Your task to perform on an android device: Open Google Image 0: 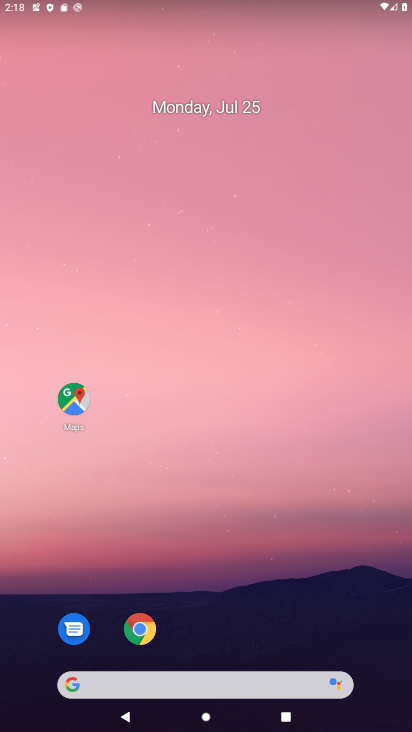
Step 0: click (99, 690)
Your task to perform on an android device: Open Google Image 1: 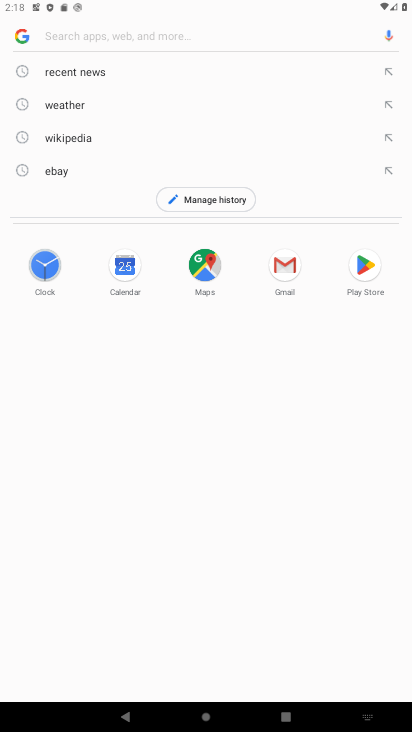
Step 1: task complete